Your task to perform on an android device: Open the Play Movies app and select the watchlist tab. Image 0: 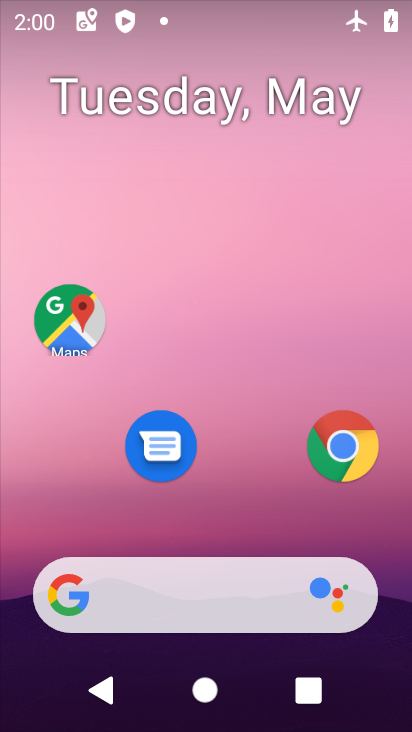
Step 0: drag from (208, 582) to (176, 3)
Your task to perform on an android device: Open the Play Movies app and select the watchlist tab. Image 1: 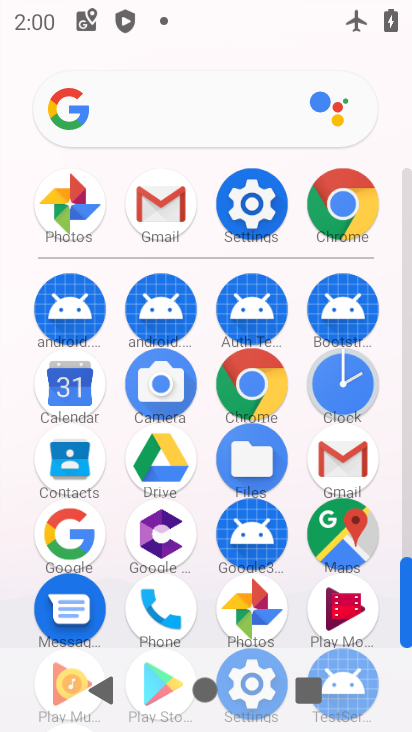
Step 1: click (350, 604)
Your task to perform on an android device: Open the Play Movies app and select the watchlist tab. Image 2: 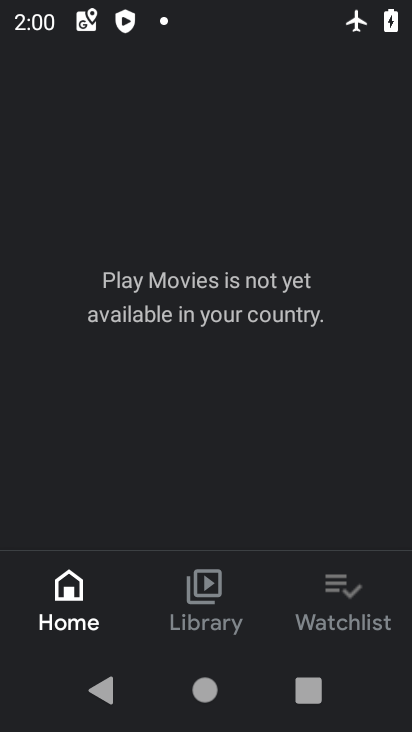
Step 2: click (339, 597)
Your task to perform on an android device: Open the Play Movies app and select the watchlist tab. Image 3: 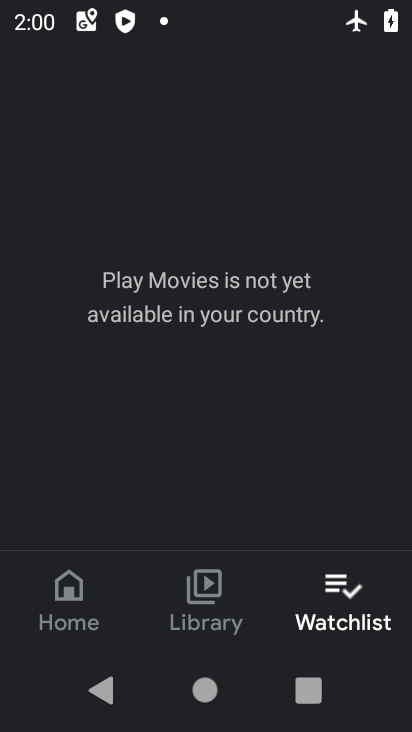
Step 3: task complete